Your task to perform on an android device: Open Chrome and go to the settings page Image 0: 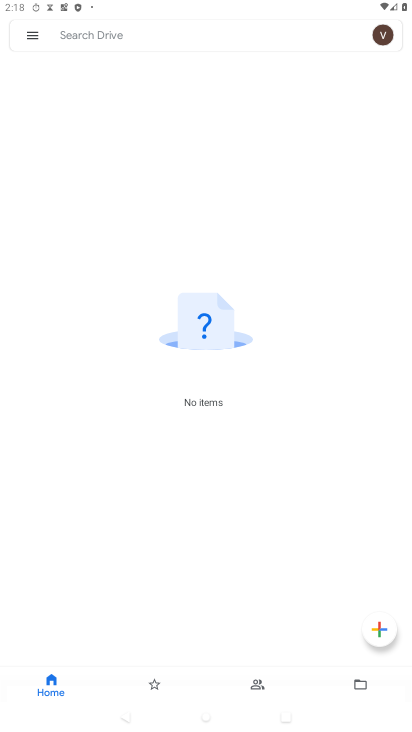
Step 0: press home button
Your task to perform on an android device: Open Chrome and go to the settings page Image 1: 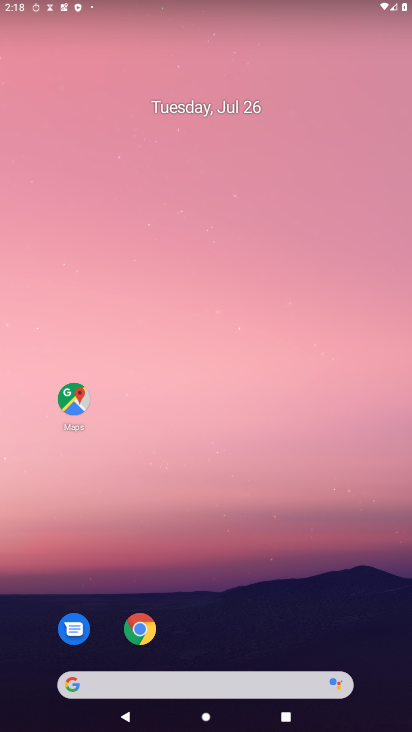
Step 1: drag from (118, 669) to (261, 56)
Your task to perform on an android device: Open Chrome and go to the settings page Image 2: 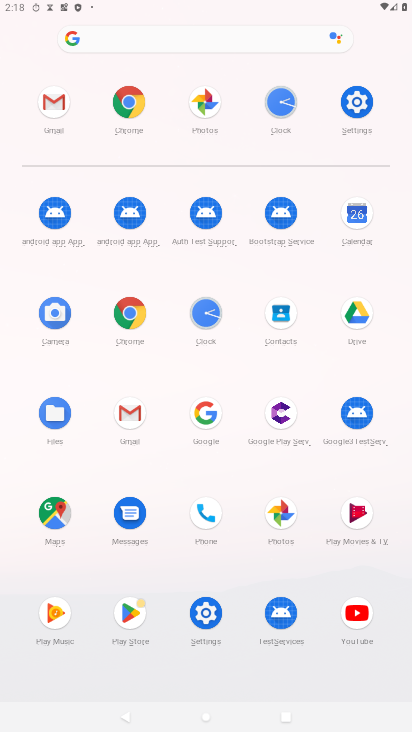
Step 2: click (127, 305)
Your task to perform on an android device: Open Chrome and go to the settings page Image 3: 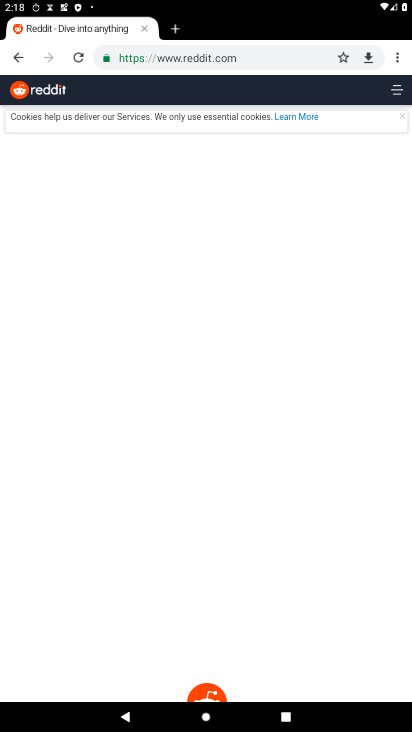
Step 3: task complete